Your task to perform on an android device: move an email to a new category in the gmail app Image 0: 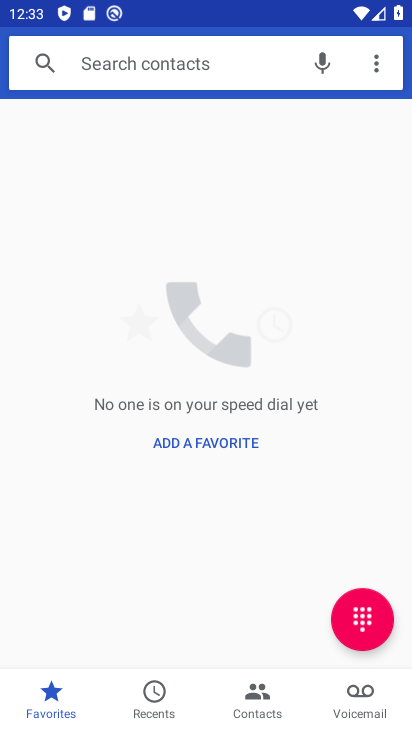
Step 0: press home button
Your task to perform on an android device: move an email to a new category in the gmail app Image 1: 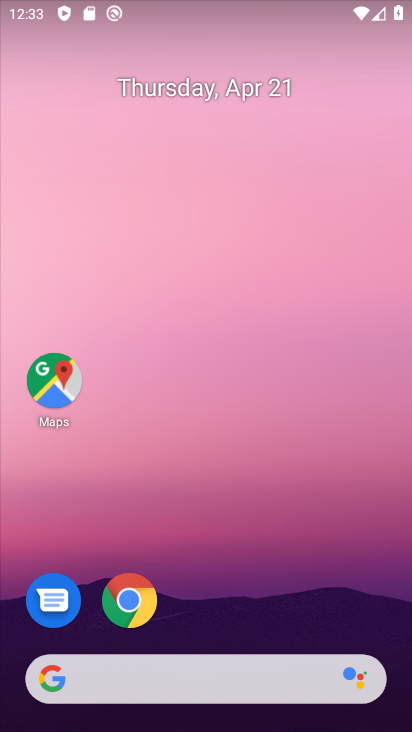
Step 1: drag from (333, 616) to (313, 90)
Your task to perform on an android device: move an email to a new category in the gmail app Image 2: 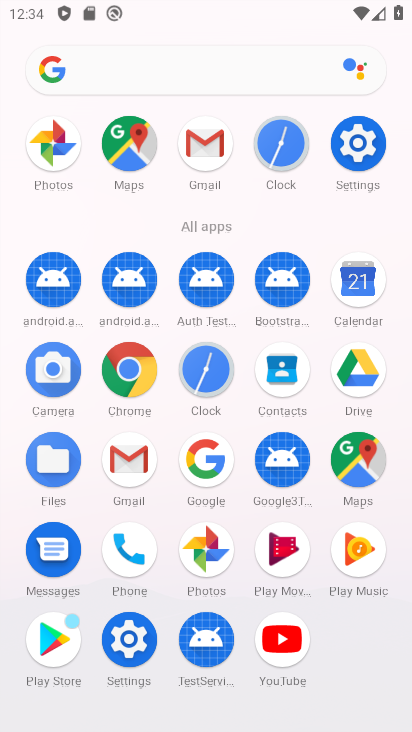
Step 2: click (128, 456)
Your task to perform on an android device: move an email to a new category in the gmail app Image 3: 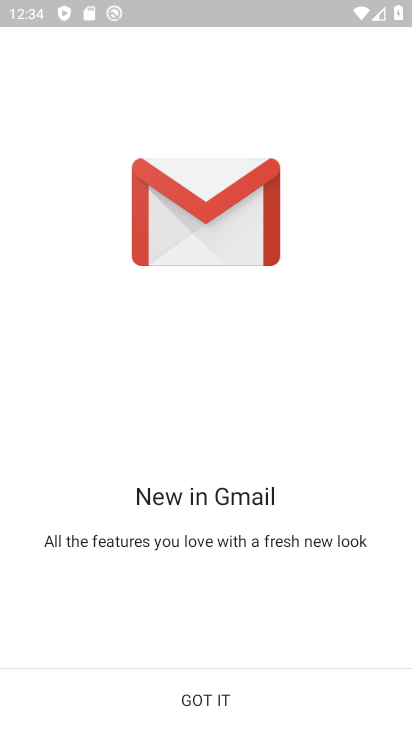
Step 3: click (202, 685)
Your task to perform on an android device: move an email to a new category in the gmail app Image 4: 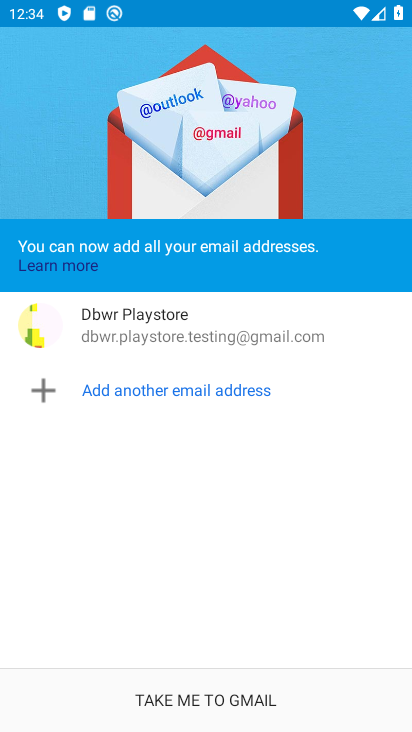
Step 4: click (208, 682)
Your task to perform on an android device: move an email to a new category in the gmail app Image 5: 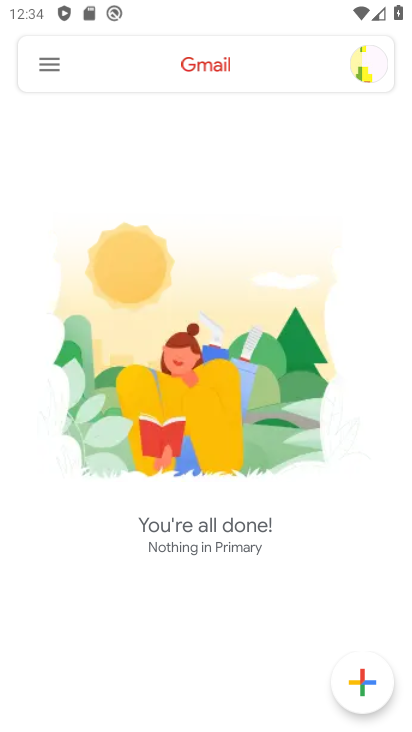
Step 5: click (50, 62)
Your task to perform on an android device: move an email to a new category in the gmail app Image 6: 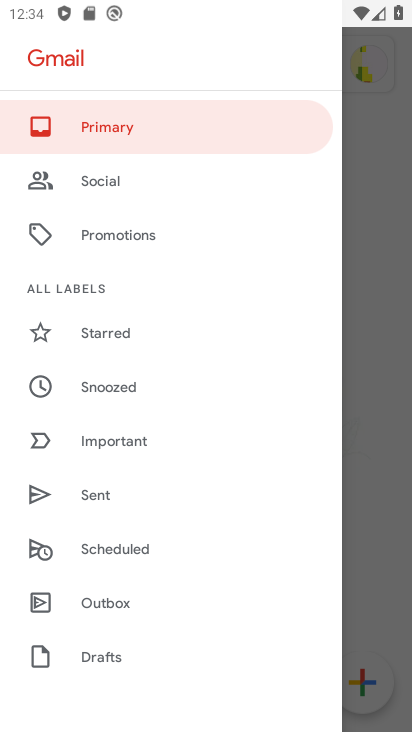
Step 6: drag from (142, 605) to (207, 77)
Your task to perform on an android device: move an email to a new category in the gmail app Image 7: 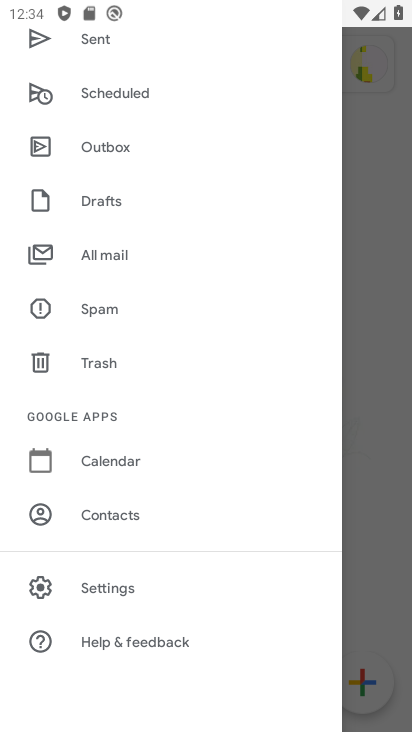
Step 7: click (97, 263)
Your task to perform on an android device: move an email to a new category in the gmail app Image 8: 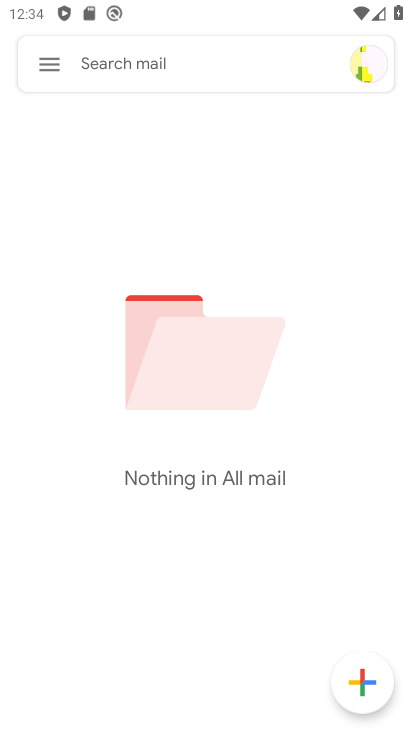
Step 8: task complete